Your task to perform on an android device: change alarm snooze length Image 0: 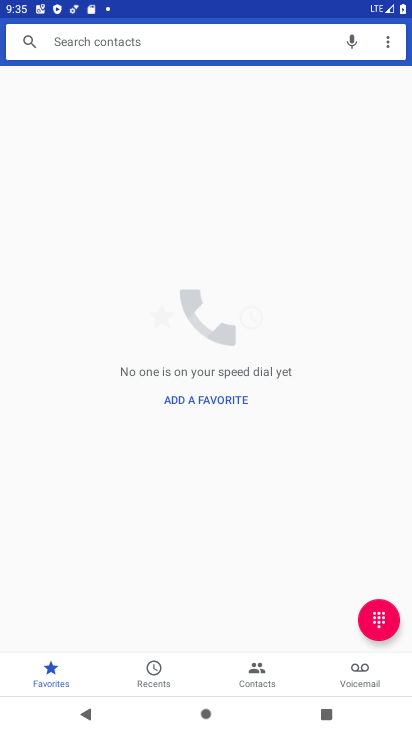
Step 0: press home button
Your task to perform on an android device: change alarm snooze length Image 1: 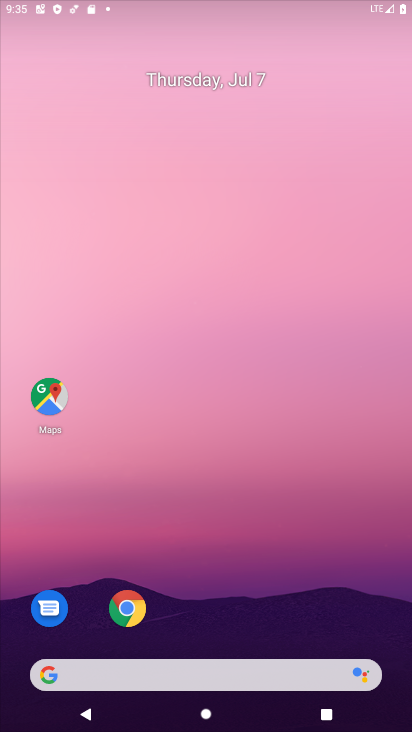
Step 1: drag from (210, 633) to (299, 128)
Your task to perform on an android device: change alarm snooze length Image 2: 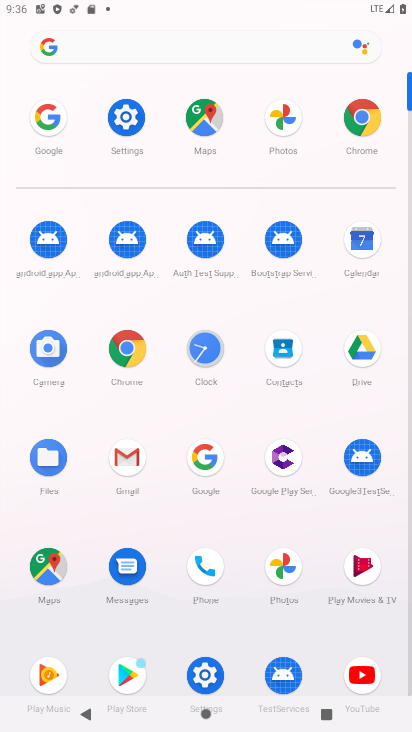
Step 2: click (206, 349)
Your task to perform on an android device: change alarm snooze length Image 3: 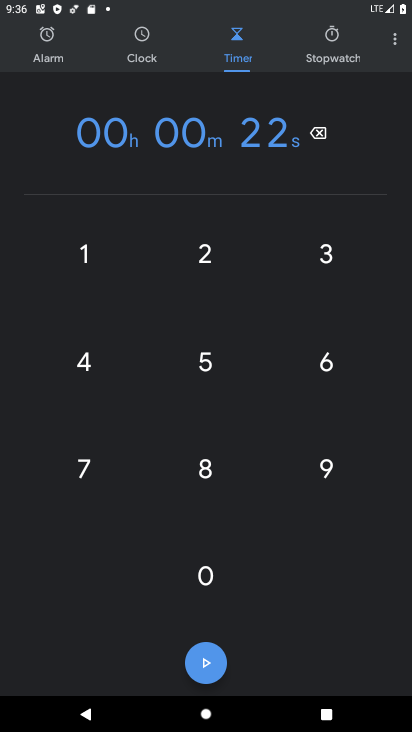
Step 3: click (389, 41)
Your task to perform on an android device: change alarm snooze length Image 4: 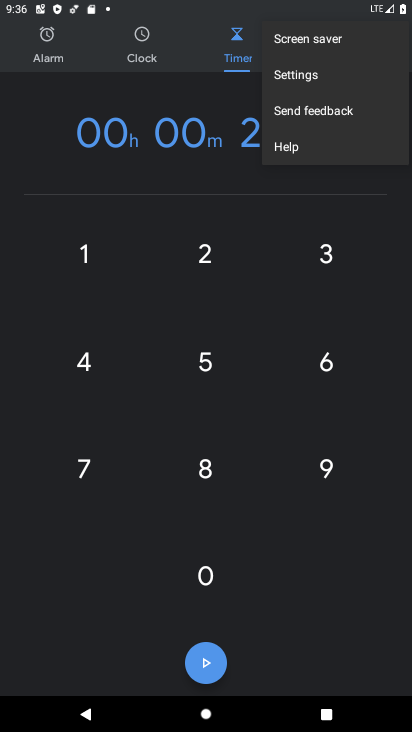
Step 4: click (305, 81)
Your task to perform on an android device: change alarm snooze length Image 5: 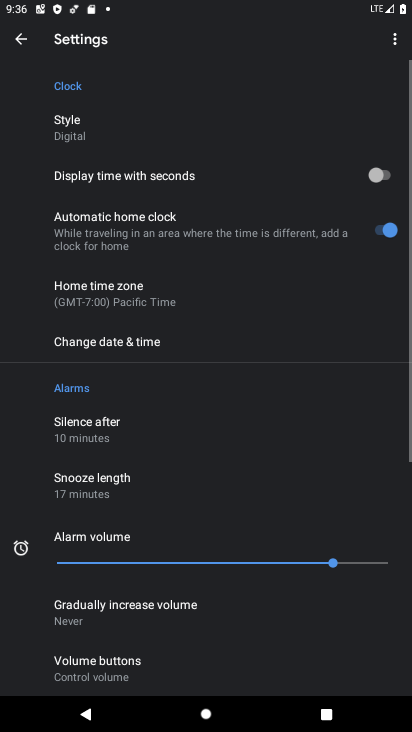
Step 5: click (108, 486)
Your task to perform on an android device: change alarm snooze length Image 6: 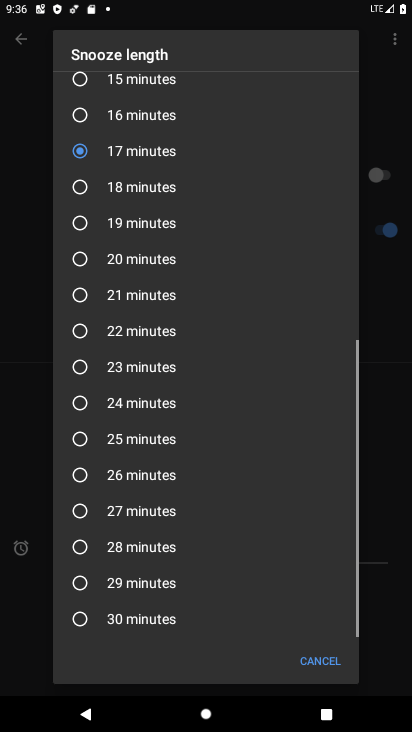
Step 6: click (83, 216)
Your task to perform on an android device: change alarm snooze length Image 7: 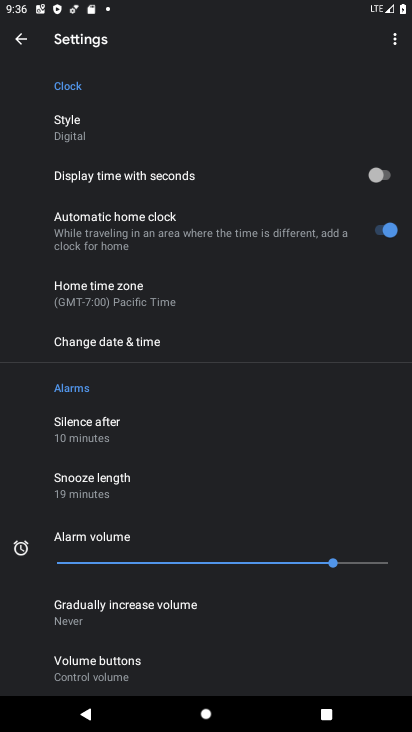
Step 7: task complete